Your task to perform on an android device: change your default location settings in chrome Image 0: 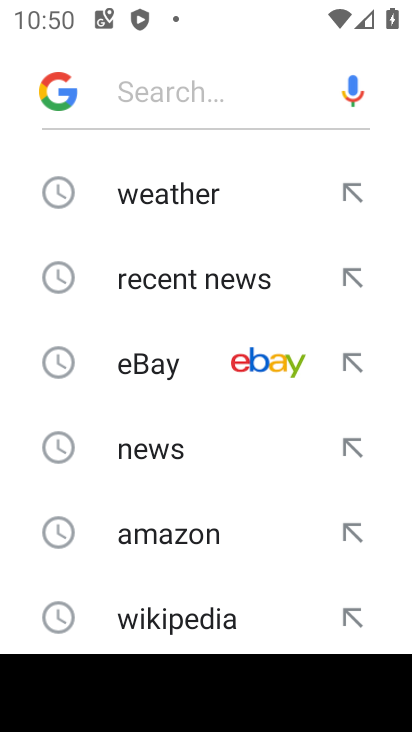
Step 0: press home button
Your task to perform on an android device: change your default location settings in chrome Image 1: 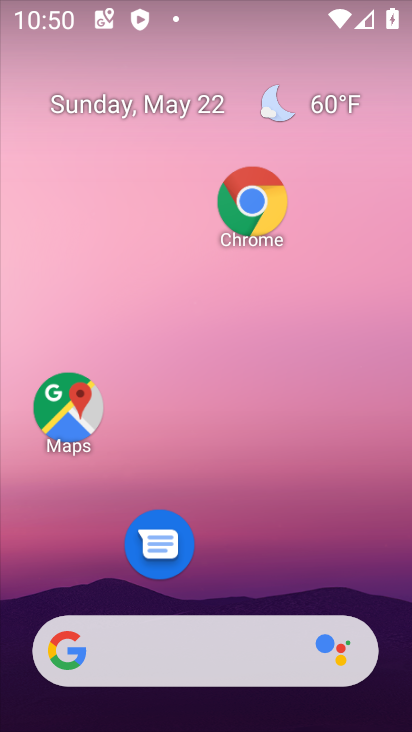
Step 1: drag from (266, 557) to (304, 49)
Your task to perform on an android device: change your default location settings in chrome Image 2: 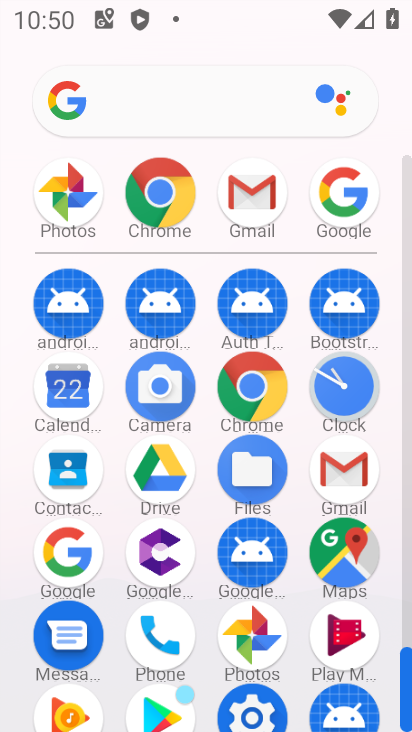
Step 2: click (157, 197)
Your task to perform on an android device: change your default location settings in chrome Image 3: 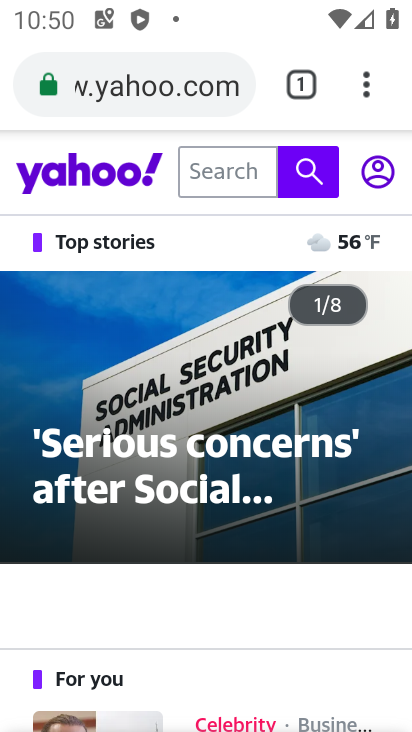
Step 3: click (353, 91)
Your task to perform on an android device: change your default location settings in chrome Image 4: 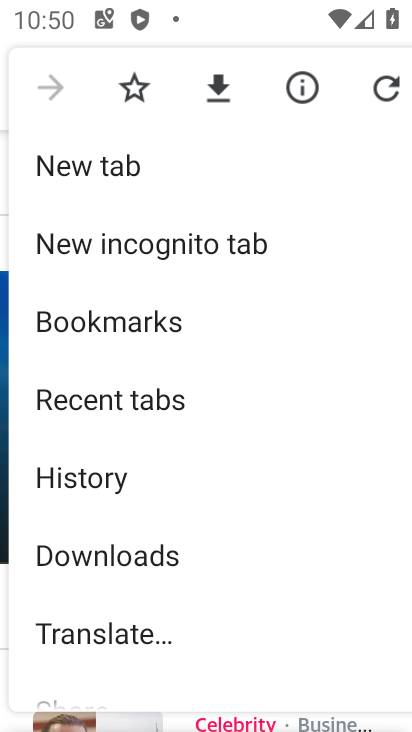
Step 4: drag from (95, 568) to (80, 126)
Your task to perform on an android device: change your default location settings in chrome Image 5: 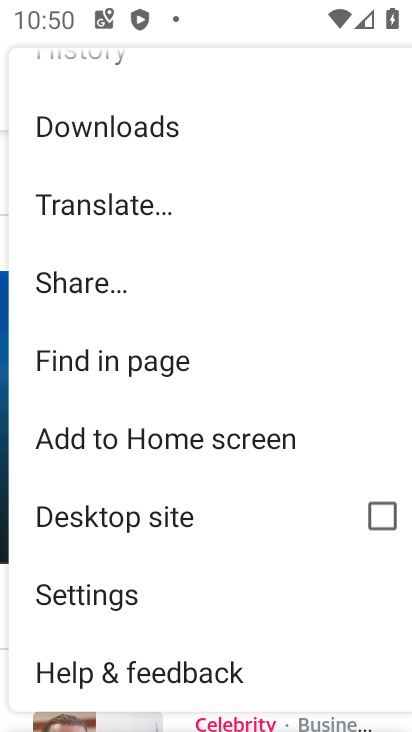
Step 5: click (147, 596)
Your task to perform on an android device: change your default location settings in chrome Image 6: 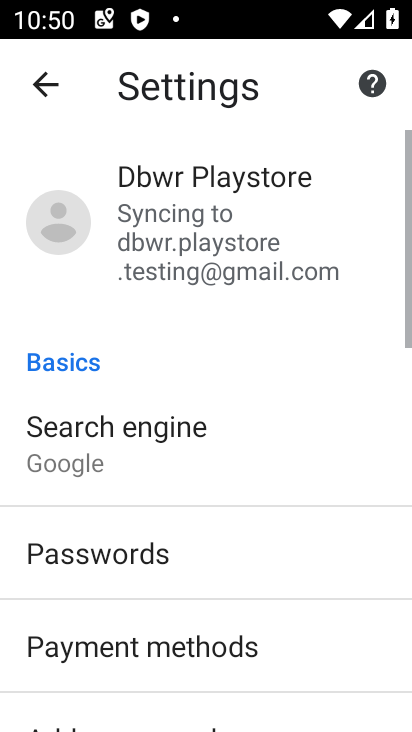
Step 6: drag from (230, 610) to (211, 243)
Your task to perform on an android device: change your default location settings in chrome Image 7: 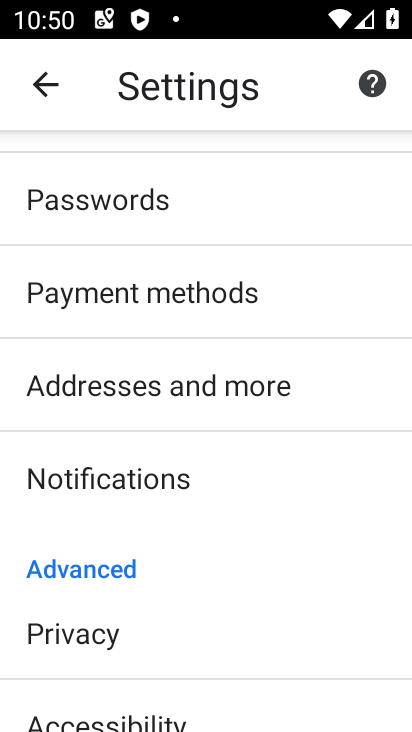
Step 7: drag from (214, 632) to (195, 204)
Your task to perform on an android device: change your default location settings in chrome Image 8: 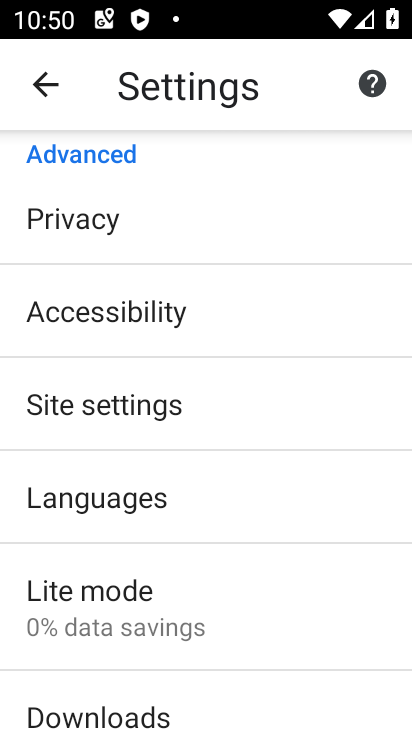
Step 8: click (129, 412)
Your task to perform on an android device: change your default location settings in chrome Image 9: 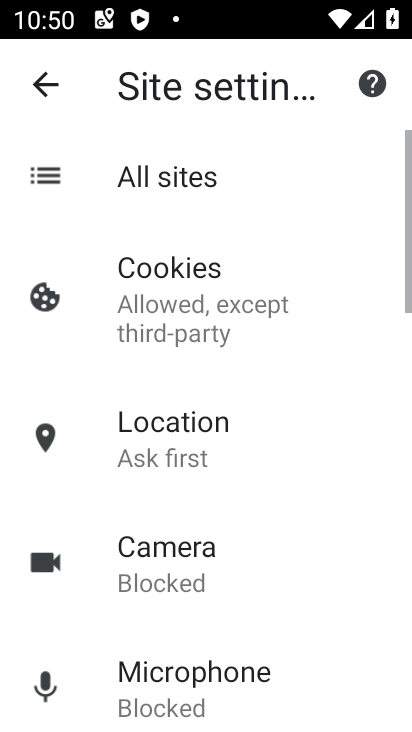
Step 9: drag from (241, 630) to (219, 476)
Your task to perform on an android device: change your default location settings in chrome Image 10: 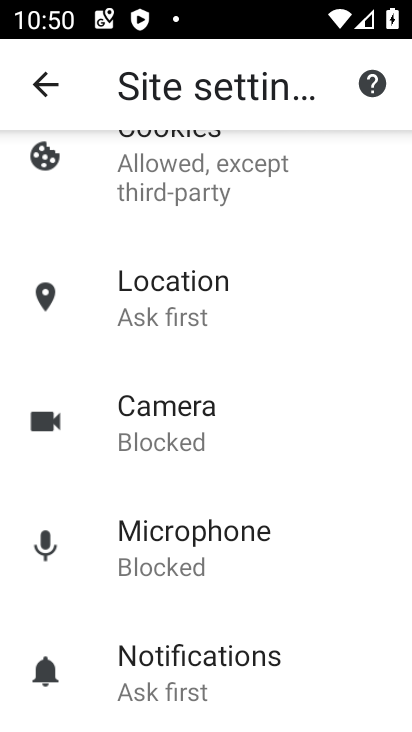
Step 10: click (187, 300)
Your task to perform on an android device: change your default location settings in chrome Image 11: 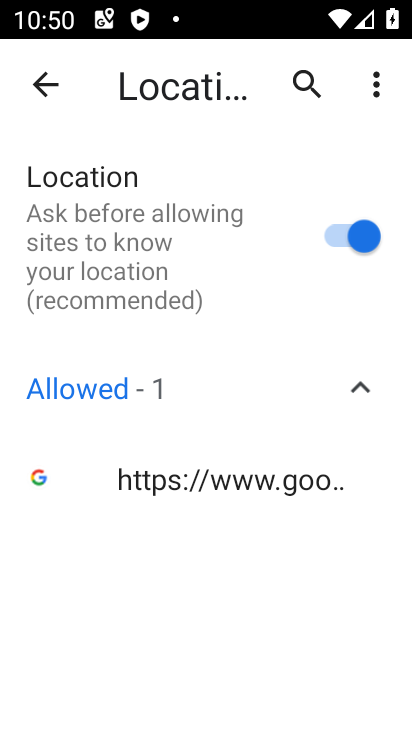
Step 11: click (344, 236)
Your task to perform on an android device: change your default location settings in chrome Image 12: 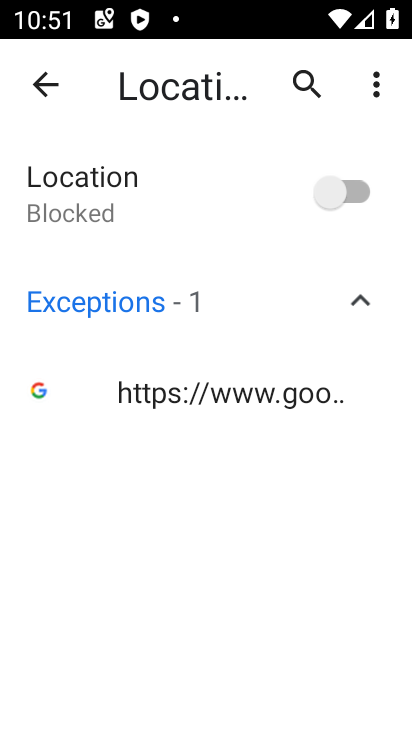
Step 12: task complete